Your task to perform on an android device: Toggle the flashlight Image 0: 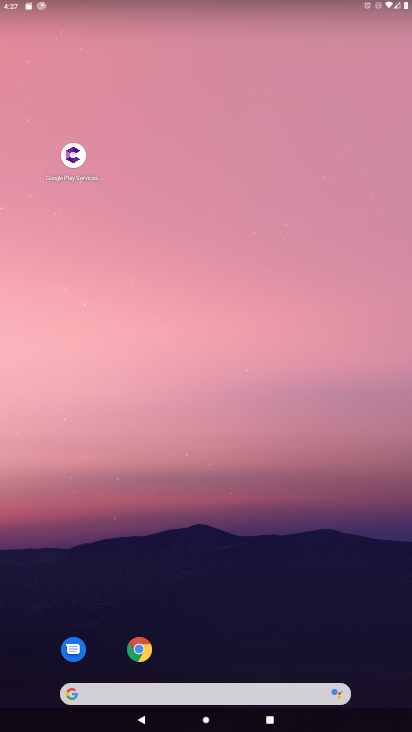
Step 0: drag from (183, 693) to (253, 182)
Your task to perform on an android device: Toggle the flashlight Image 1: 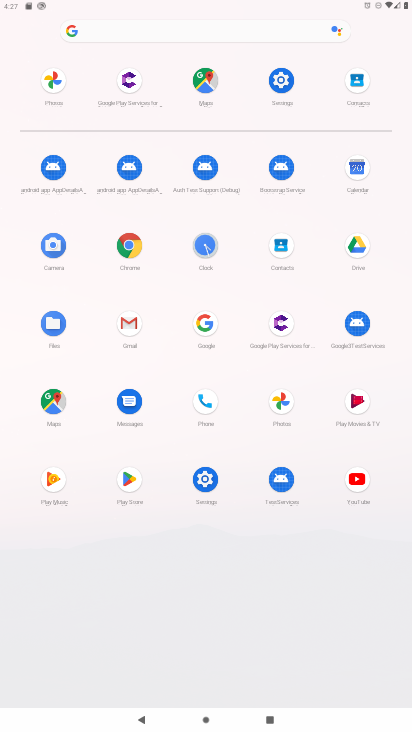
Step 1: click (281, 82)
Your task to perform on an android device: Toggle the flashlight Image 2: 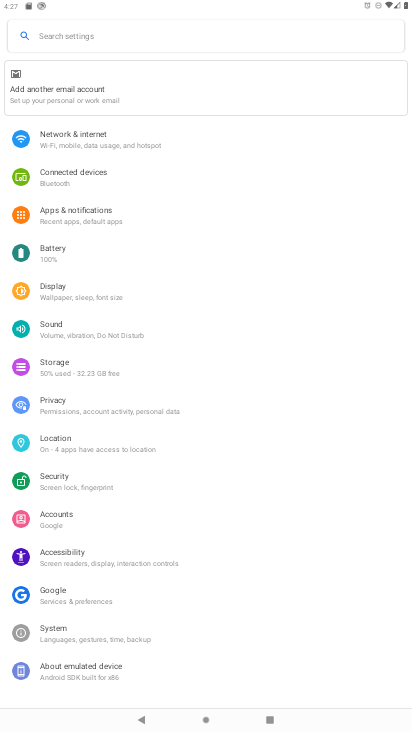
Step 2: click (68, 299)
Your task to perform on an android device: Toggle the flashlight Image 3: 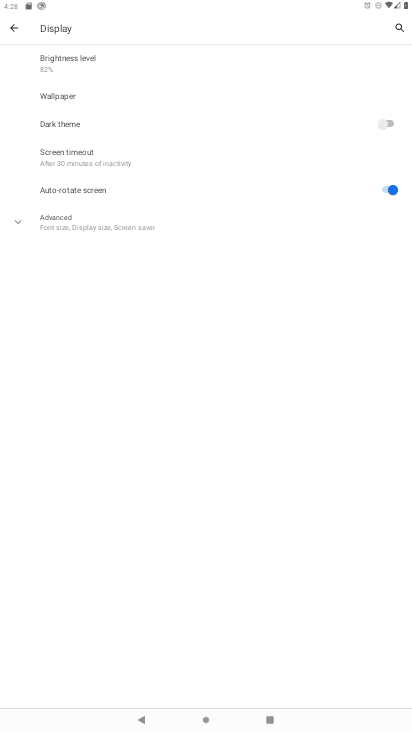
Step 3: click (81, 151)
Your task to perform on an android device: Toggle the flashlight Image 4: 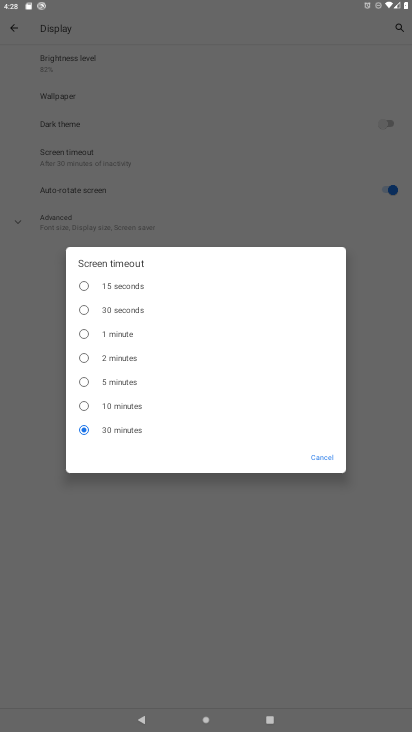
Step 4: click (332, 458)
Your task to perform on an android device: Toggle the flashlight Image 5: 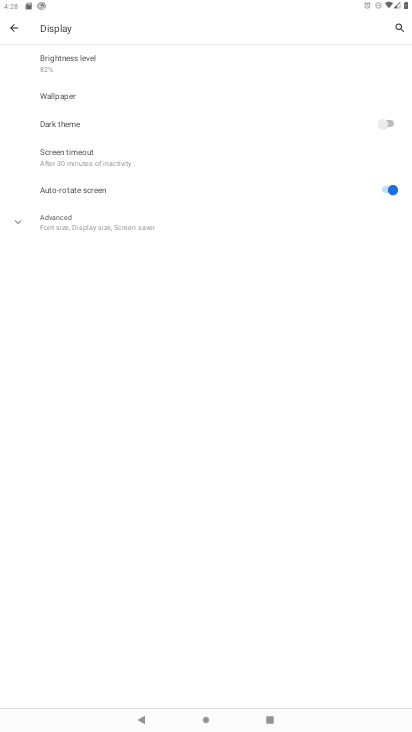
Step 5: click (128, 222)
Your task to perform on an android device: Toggle the flashlight Image 6: 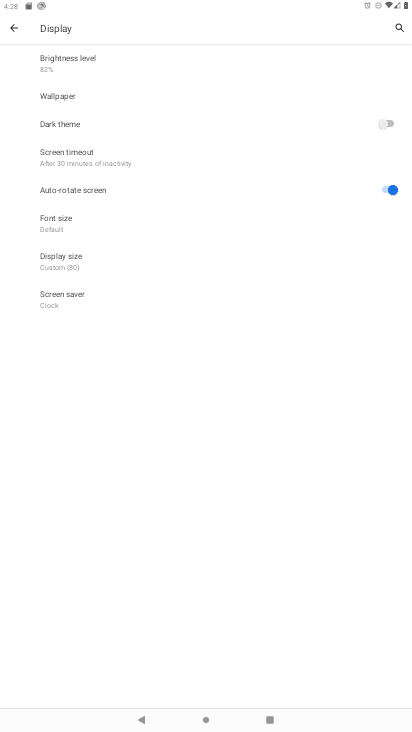
Step 6: click (66, 293)
Your task to perform on an android device: Toggle the flashlight Image 7: 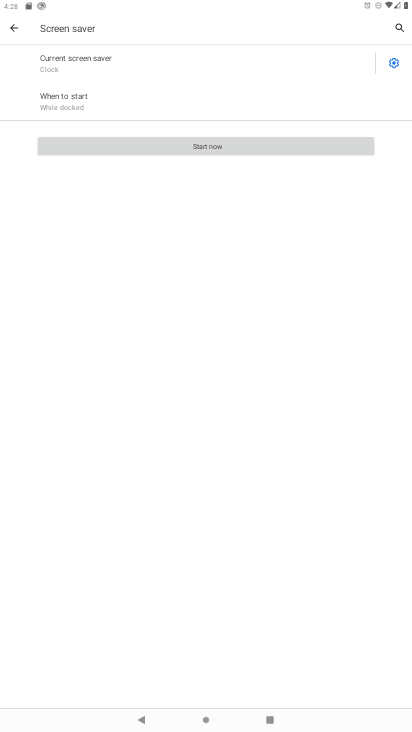
Step 7: task complete